Your task to perform on an android device: Search for a new blush on Sephora Image 0: 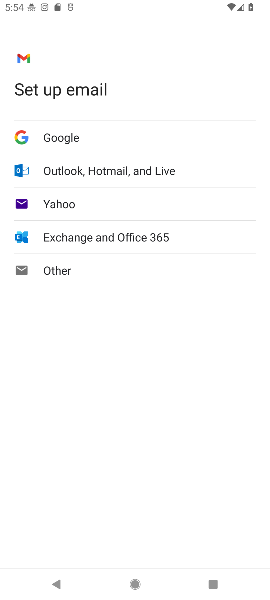
Step 0: press home button
Your task to perform on an android device: Search for a new blush on Sephora Image 1: 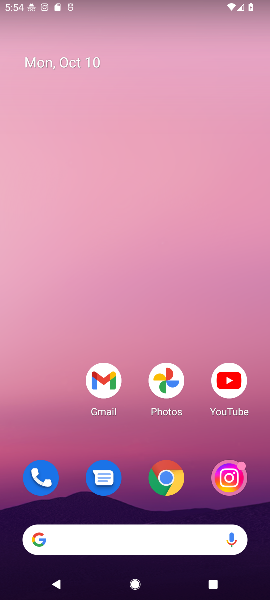
Step 1: click (162, 477)
Your task to perform on an android device: Search for a new blush on Sephora Image 2: 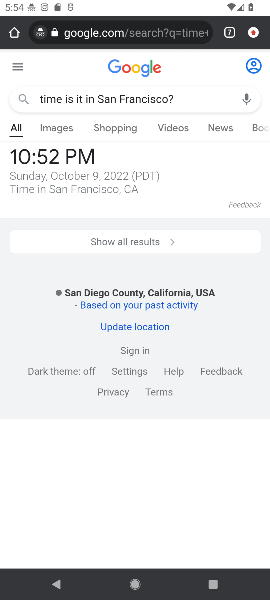
Step 2: click (150, 28)
Your task to perform on an android device: Search for a new blush on Sephora Image 3: 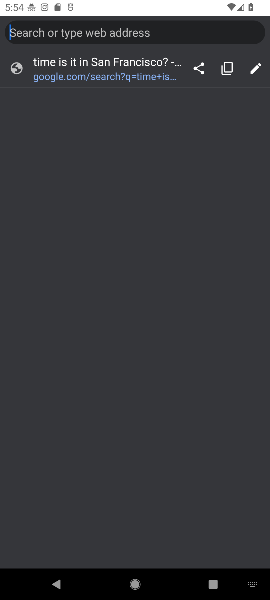
Step 3: type " new blush on Sephora"
Your task to perform on an android device: Search for a new blush on Sephora Image 4: 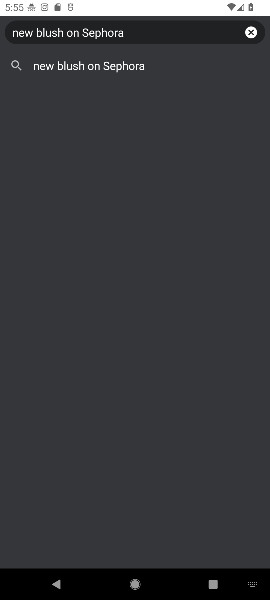
Step 4: click (137, 62)
Your task to perform on an android device: Search for a new blush on Sephora Image 5: 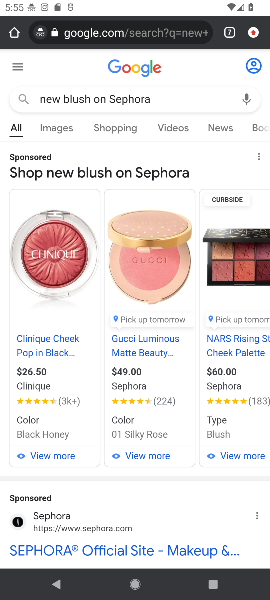
Step 5: click (131, 127)
Your task to perform on an android device: Search for a new blush on Sephora Image 6: 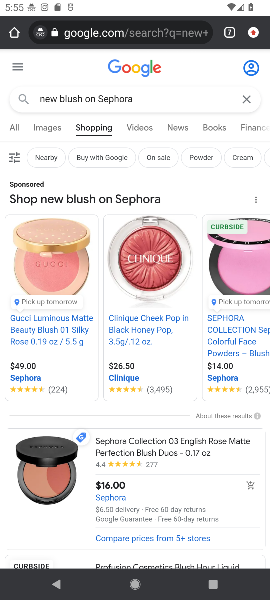
Step 6: click (154, 323)
Your task to perform on an android device: Search for a new blush on Sephora Image 7: 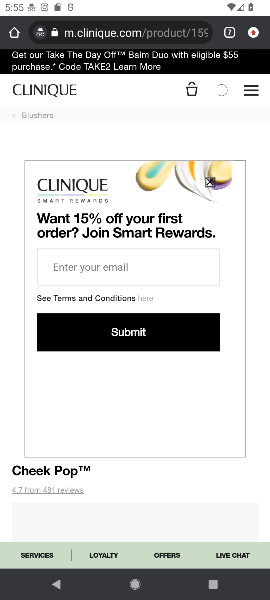
Step 7: task complete